Your task to perform on an android device: Go to Yahoo.com Image 0: 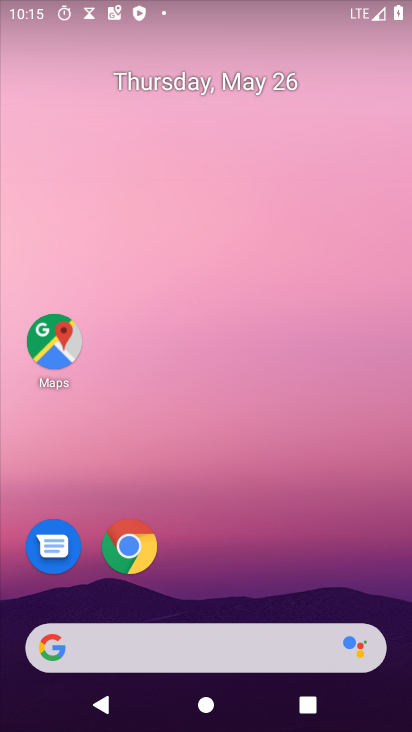
Step 0: drag from (261, 574) to (290, 157)
Your task to perform on an android device: Go to Yahoo.com Image 1: 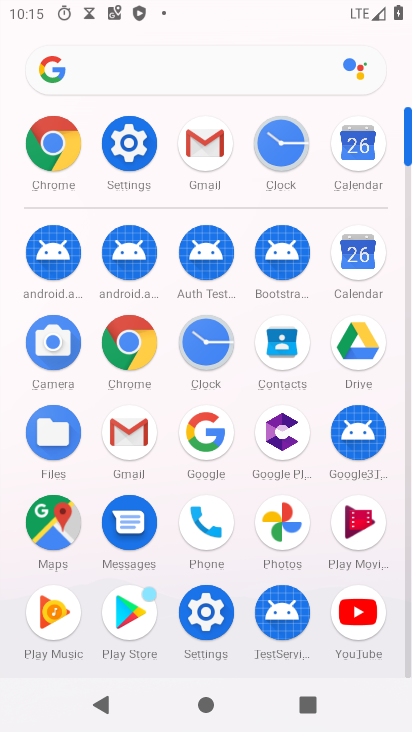
Step 1: click (132, 366)
Your task to perform on an android device: Go to Yahoo.com Image 2: 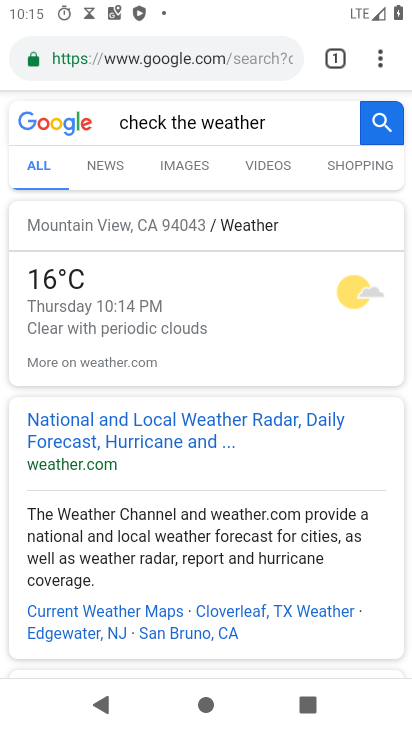
Step 2: click (240, 60)
Your task to perform on an android device: Go to Yahoo.com Image 3: 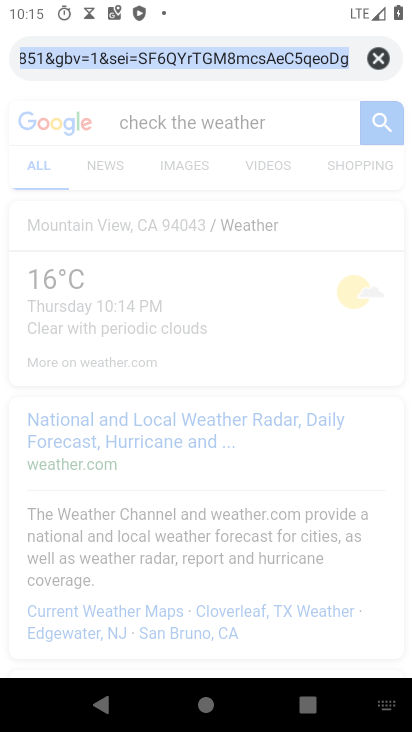
Step 3: click (381, 59)
Your task to perform on an android device: Go to Yahoo.com Image 4: 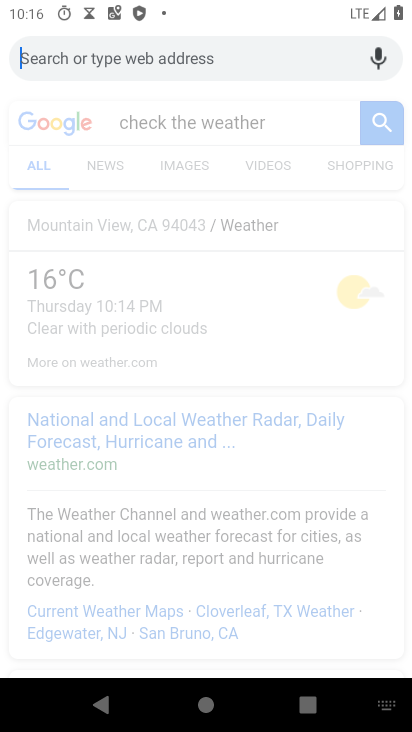
Step 4: type "yahoo.com"
Your task to perform on an android device: Go to Yahoo.com Image 5: 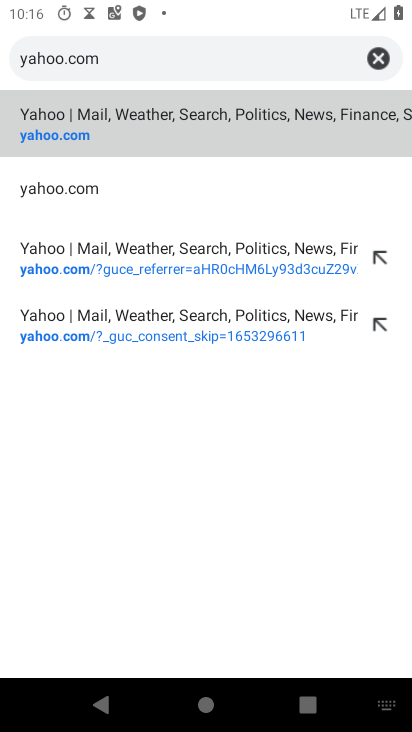
Step 5: click (254, 130)
Your task to perform on an android device: Go to Yahoo.com Image 6: 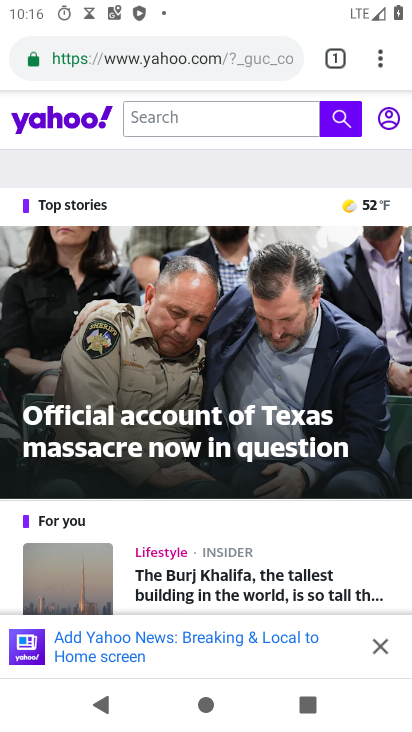
Step 6: task complete